Your task to perform on an android device: open chrome privacy settings Image 0: 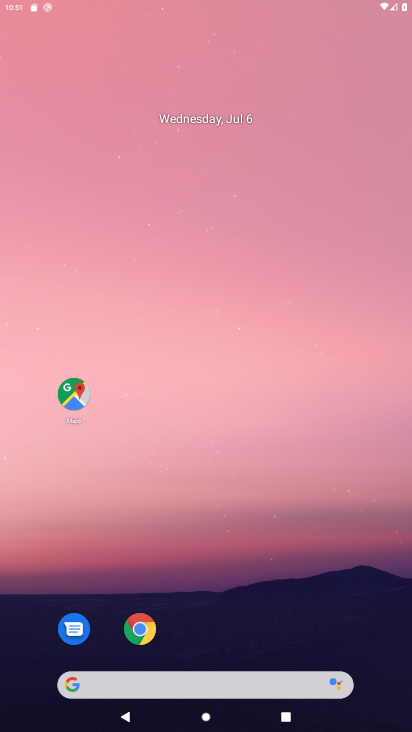
Step 0: click (217, 90)
Your task to perform on an android device: open chrome privacy settings Image 1: 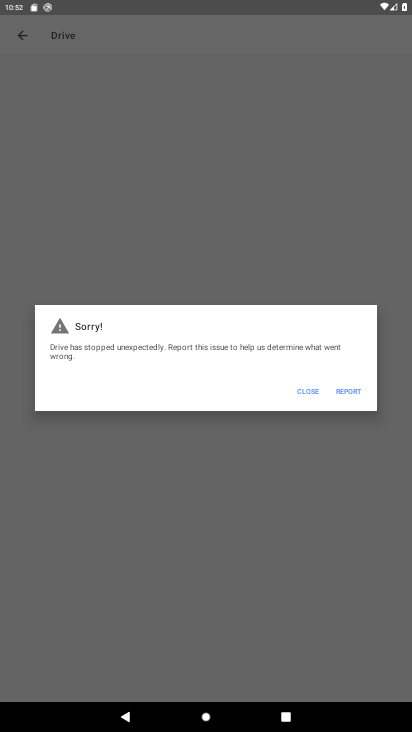
Step 1: press home button
Your task to perform on an android device: open chrome privacy settings Image 2: 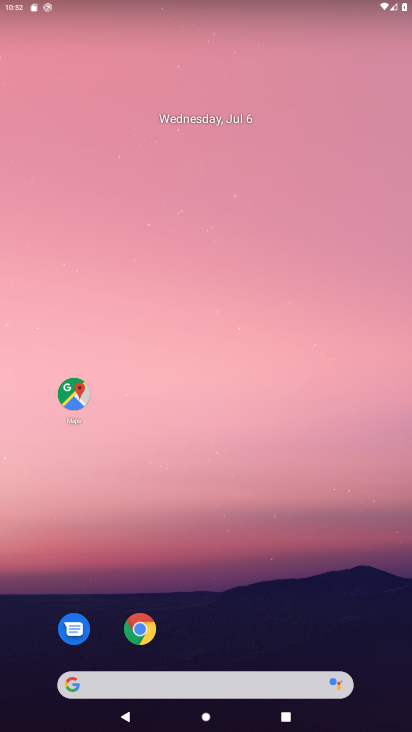
Step 2: click (139, 628)
Your task to perform on an android device: open chrome privacy settings Image 3: 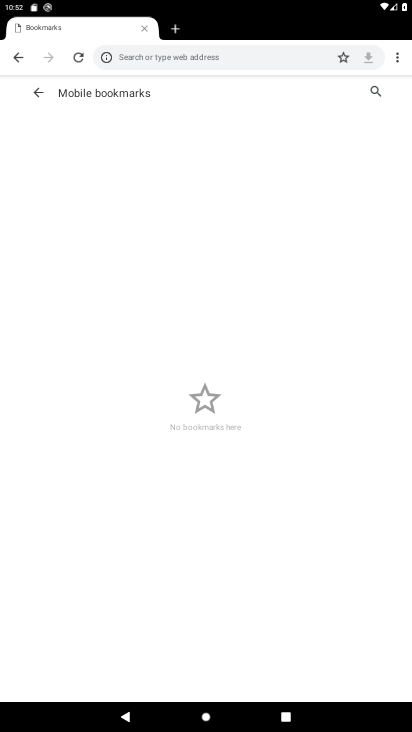
Step 3: click (396, 60)
Your task to perform on an android device: open chrome privacy settings Image 4: 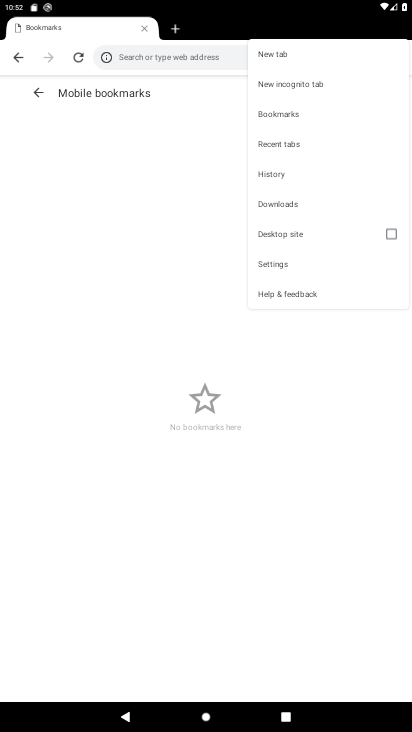
Step 4: click (298, 262)
Your task to perform on an android device: open chrome privacy settings Image 5: 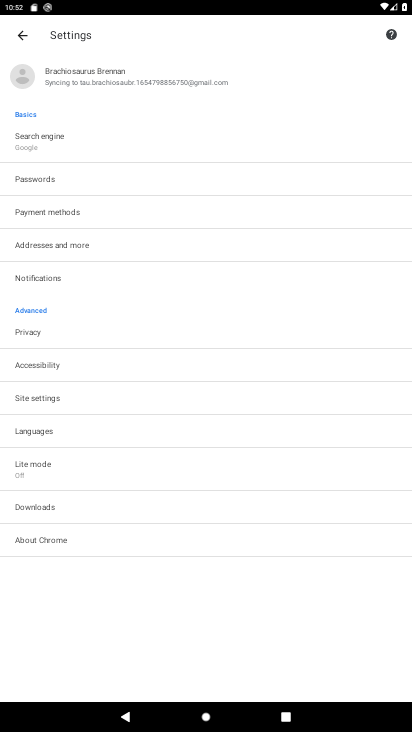
Step 5: click (47, 333)
Your task to perform on an android device: open chrome privacy settings Image 6: 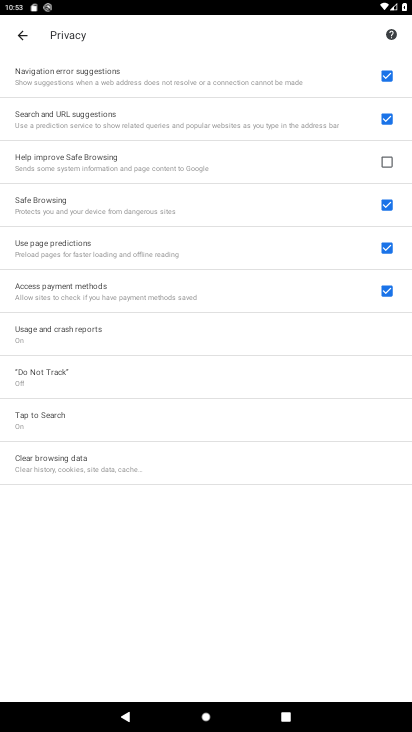
Step 6: task complete